Your task to perform on an android device: Search for Italian restaurants on Maps Image 0: 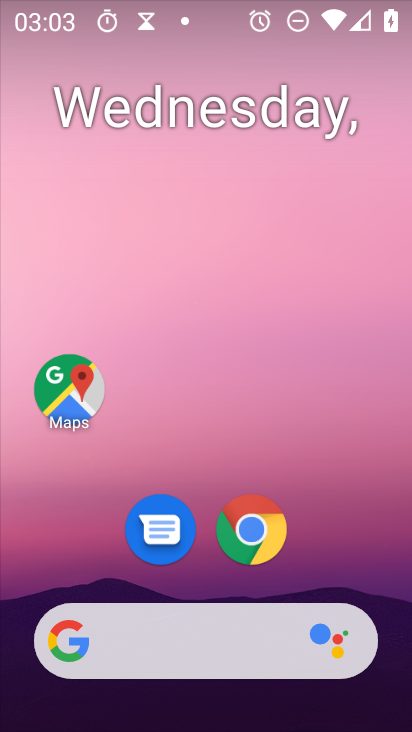
Step 0: drag from (224, 631) to (195, 39)
Your task to perform on an android device: Search for Italian restaurants on Maps Image 1: 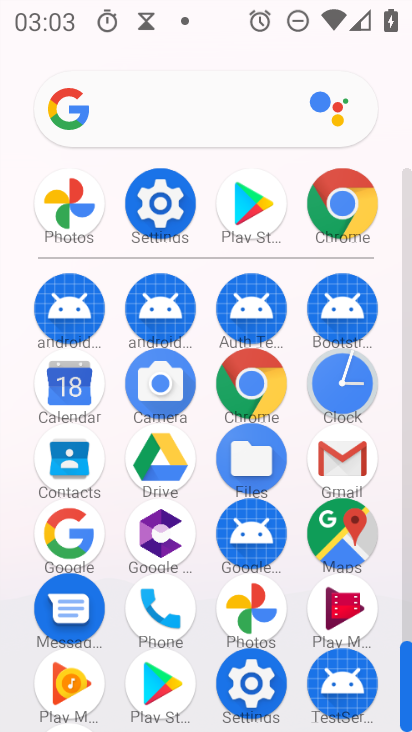
Step 1: click (338, 548)
Your task to perform on an android device: Search for Italian restaurants on Maps Image 2: 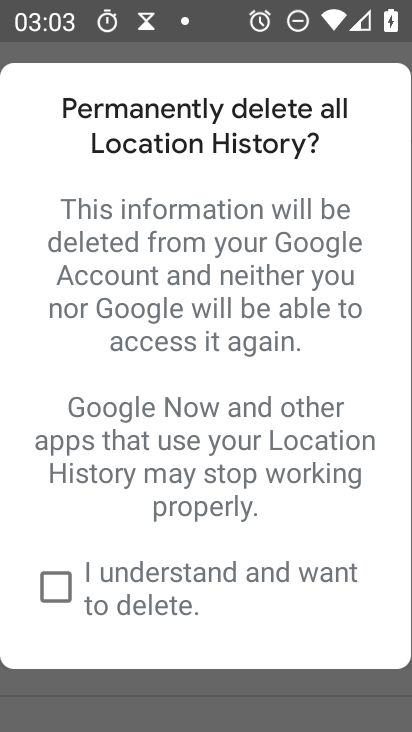
Step 2: press back button
Your task to perform on an android device: Search for Italian restaurants on Maps Image 3: 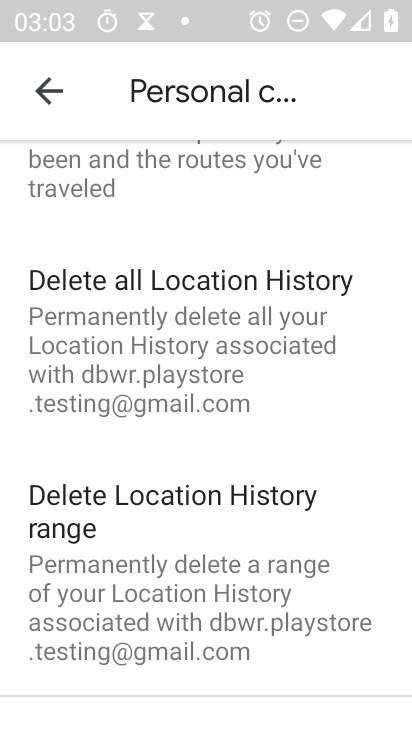
Step 3: press back button
Your task to perform on an android device: Search for Italian restaurants on Maps Image 4: 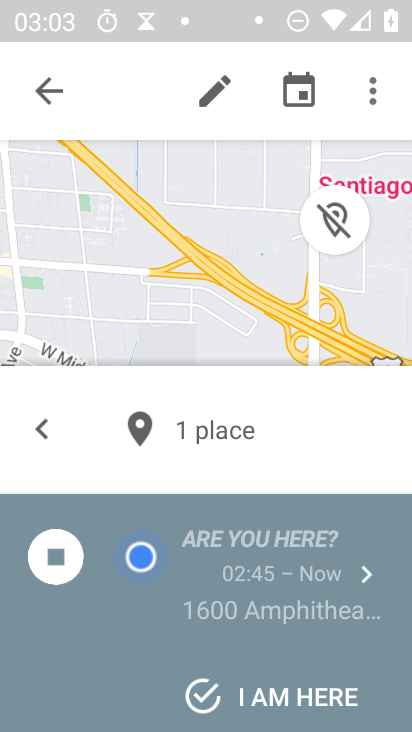
Step 4: press back button
Your task to perform on an android device: Search for Italian restaurants on Maps Image 5: 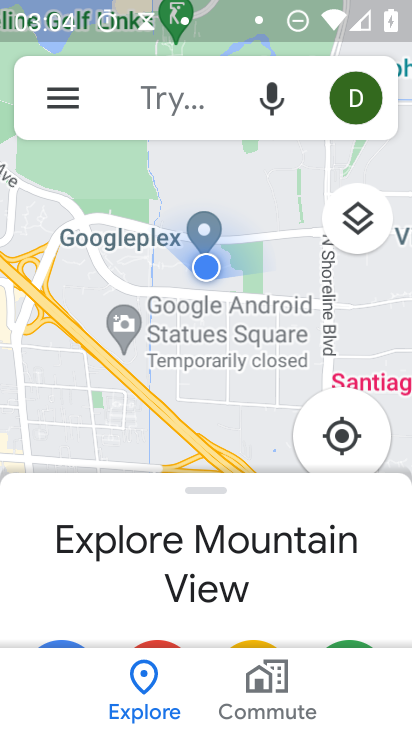
Step 5: click (181, 125)
Your task to perform on an android device: Search for Italian restaurants on Maps Image 6: 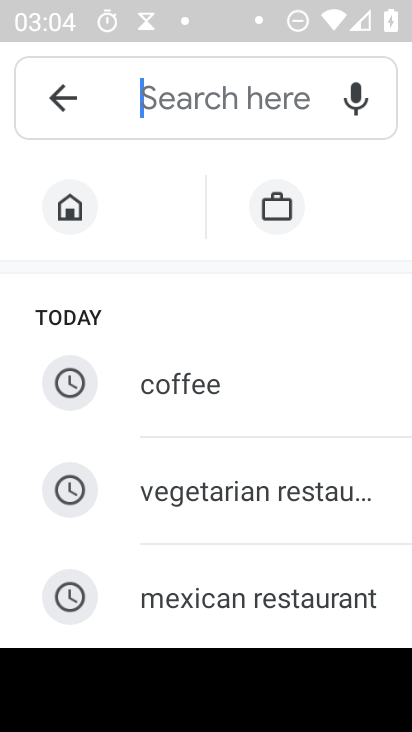
Step 6: type "italian restaurant"
Your task to perform on an android device: Search for Italian restaurants on Maps Image 7: 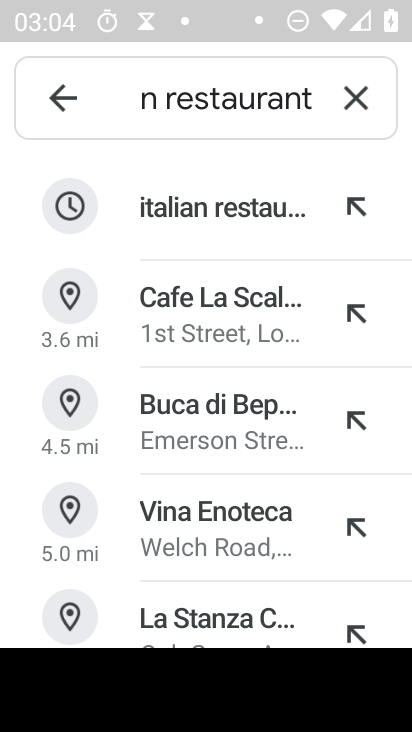
Step 7: click (283, 238)
Your task to perform on an android device: Search for Italian restaurants on Maps Image 8: 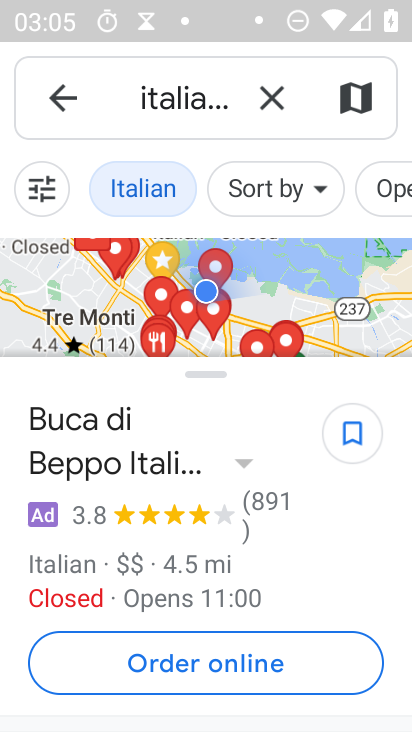
Step 8: task complete